Your task to perform on an android device: set default search engine in the chrome app Image 0: 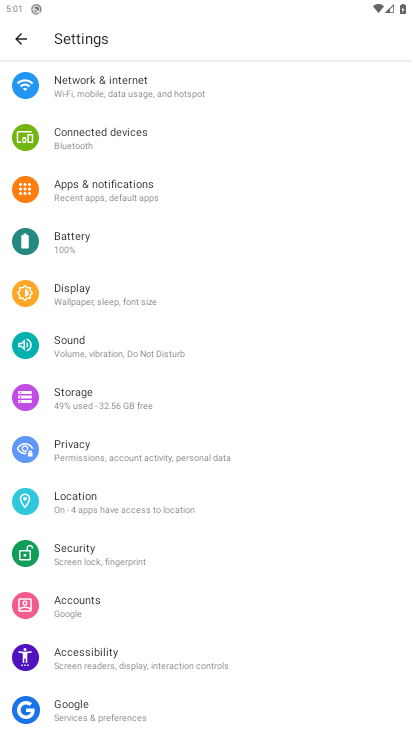
Step 0: press home button
Your task to perform on an android device: set default search engine in the chrome app Image 1: 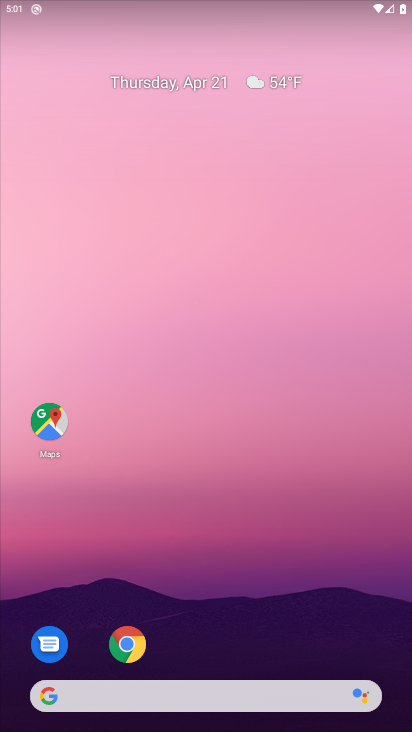
Step 1: click (129, 650)
Your task to perform on an android device: set default search engine in the chrome app Image 2: 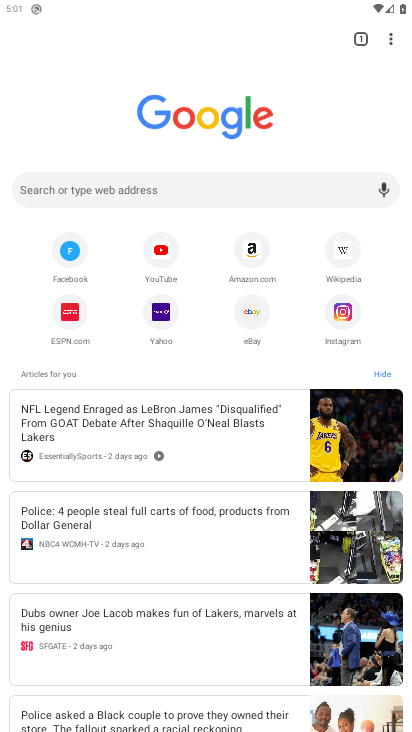
Step 2: click (392, 39)
Your task to perform on an android device: set default search engine in the chrome app Image 3: 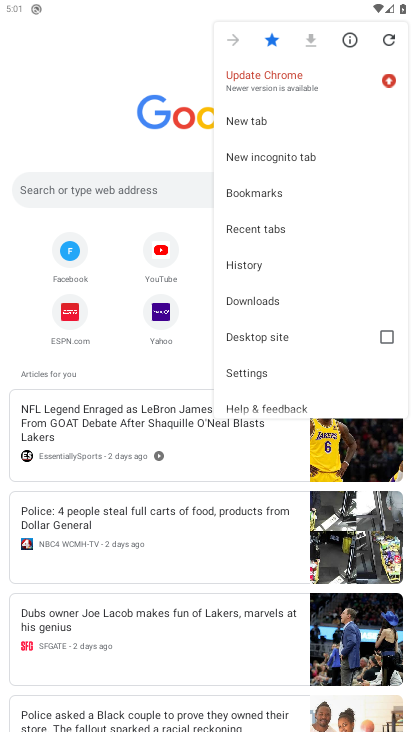
Step 3: click (260, 372)
Your task to perform on an android device: set default search engine in the chrome app Image 4: 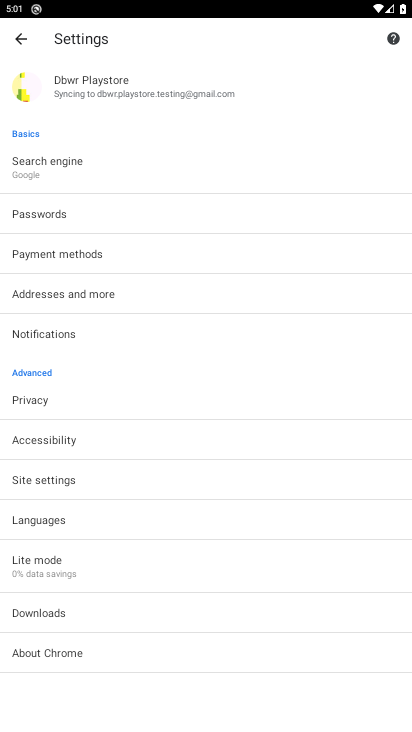
Step 4: click (67, 160)
Your task to perform on an android device: set default search engine in the chrome app Image 5: 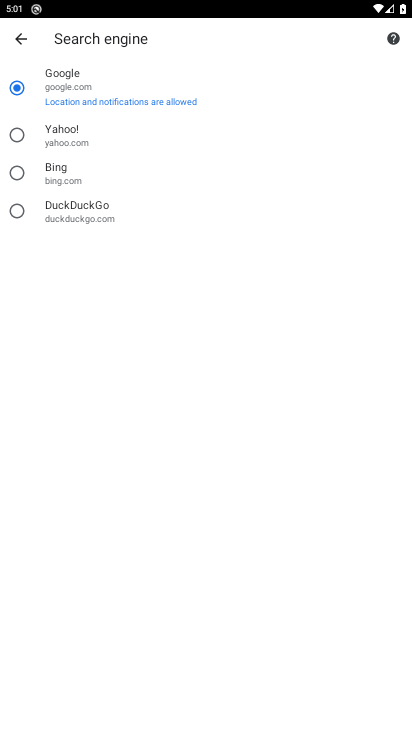
Step 5: task complete